Your task to perform on an android device: Open the phone app and click the voicemail tab. Image 0: 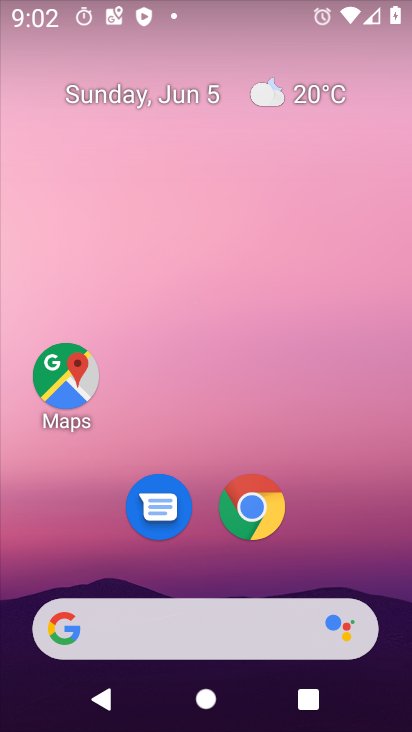
Step 0: drag from (339, 548) to (266, 28)
Your task to perform on an android device: Open the phone app and click the voicemail tab. Image 1: 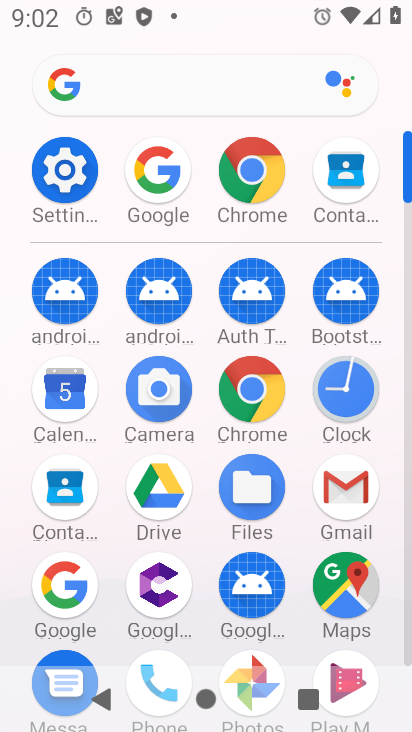
Step 1: drag from (9, 595) to (1, 285)
Your task to perform on an android device: Open the phone app and click the voicemail tab. Image 2: 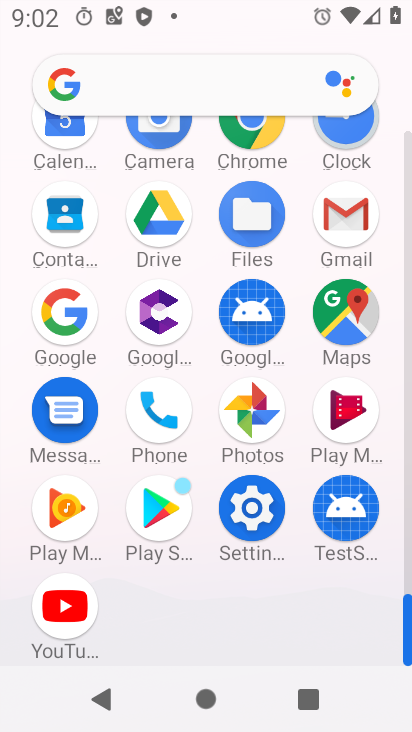
Step 2: drag from (16, 186) to (4, 419)
Your task to perform on an android device: Open the phone app and click the voicemail tab. Image 3: 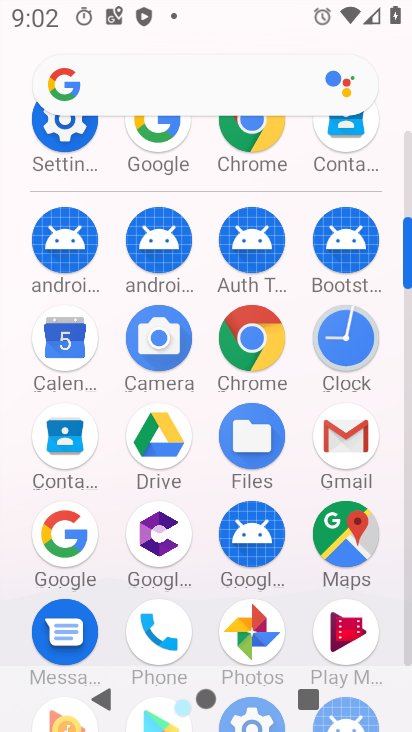
Step 3: click (157, 623)
Your task to perform on an android device: Open the phone app and click the voicemail tab. Image 4: 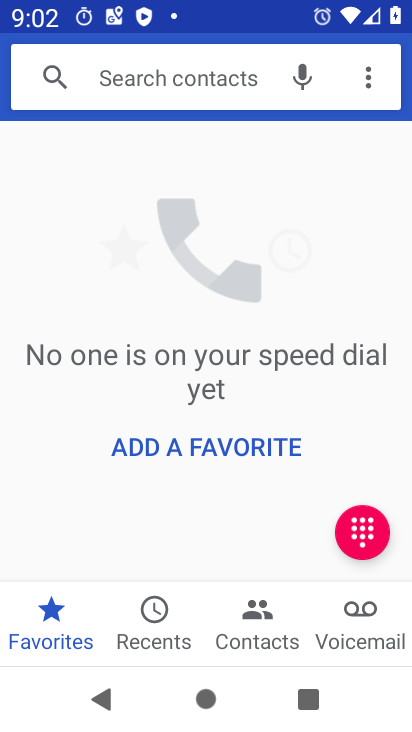
Step 4: click (366, 635)
Your task to perform on an android device: Open the phone app and click the voicemail tab. Image 5: 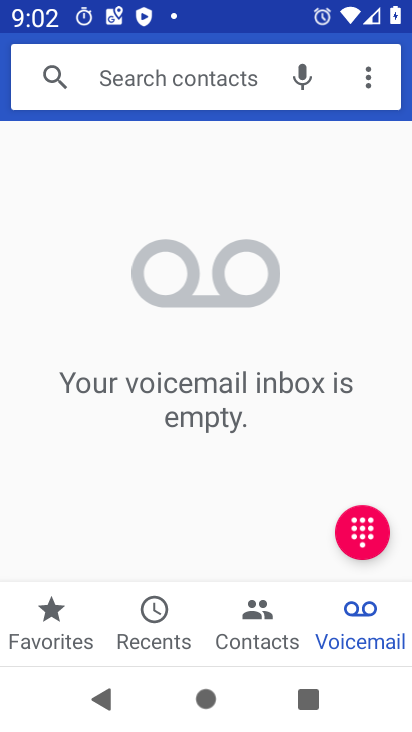
Step 5: task complete